Your task to perform on an android device: Go to CNN.com Image 0: 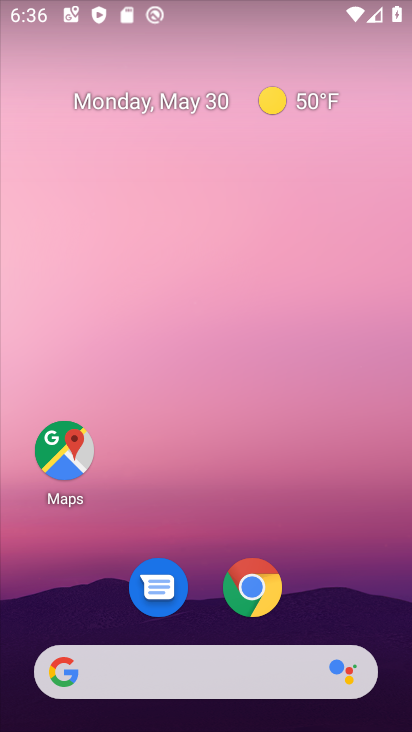
Step 0: drag from (332, 539) to (219, 17)
Your task to perform on an android device: Go to CNN.com Image 1: 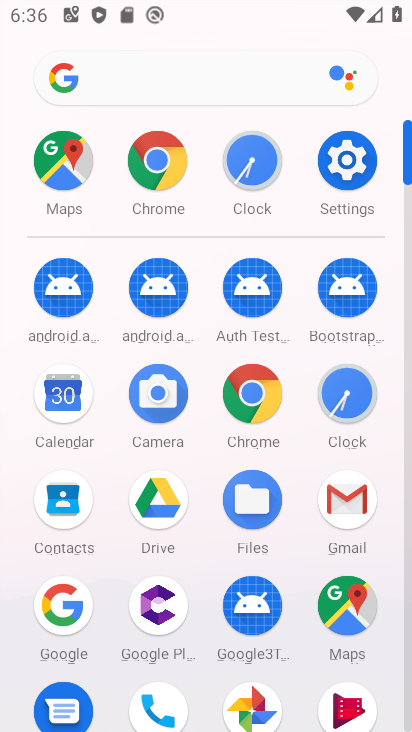
Step 1: drag from (26, 566) to (13, 206)
Your task to perform on an android device: Go to CNN.com Image 2: 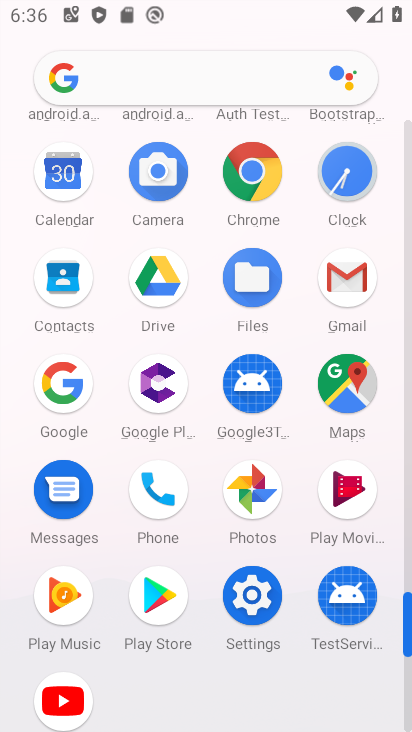
Step 2: click (249, 173)
Your task to perform on an android device: Go to CNN.com Image 3: 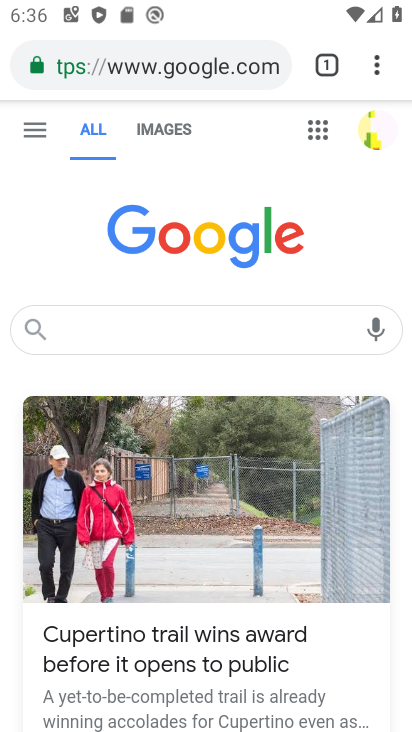
Step 3: click (153, 68)
Your task to perform on an android device: Go to CNN.com Image 4: 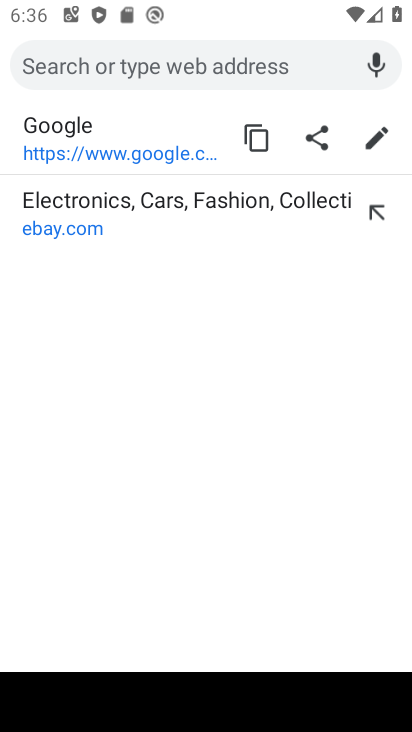
Step 4: type "CNN.com"
Your task to perform on an android device: Go to CNN.com Image 5: 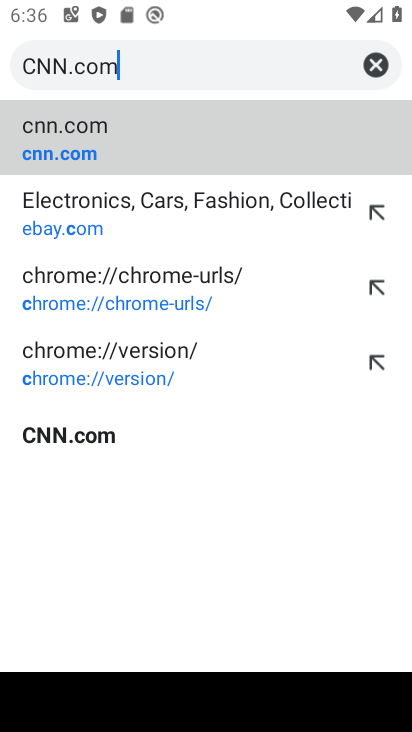
Step 5: type ""
Your task to perform on an android device: Go to CNN.com Image 6: 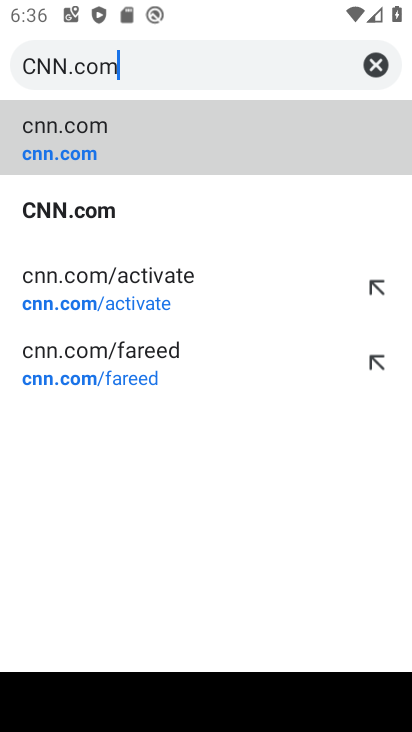
Step 6: click (105, 139)
Your task to perform on an android device: Go to CNN.com Image 7: 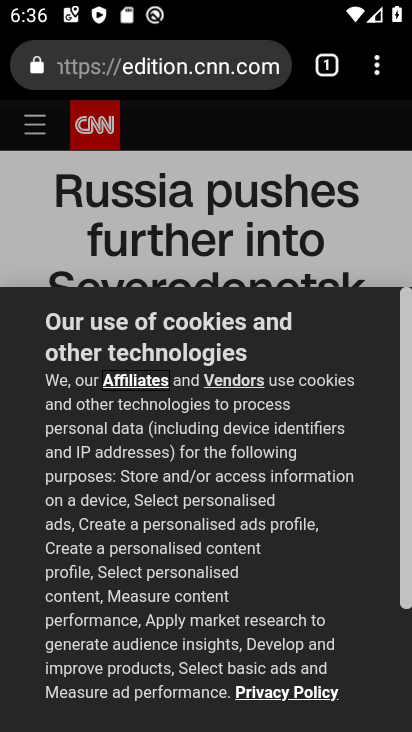
Step 7: task complete